Your task to perform on an android device: Turn off the flashlight Image 0: 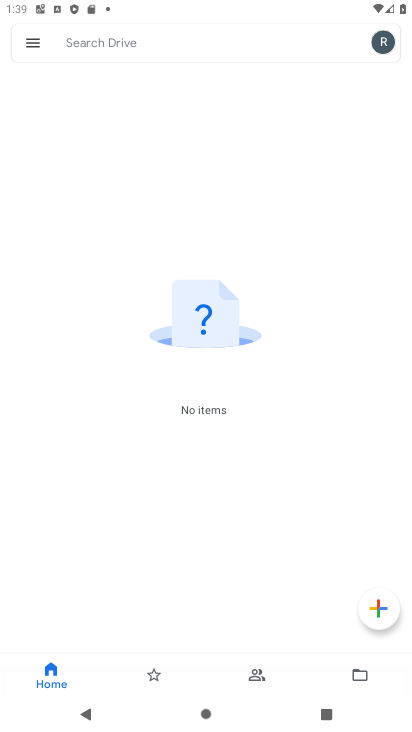
Step 0: press home button
Your task to perform on an android device: Turn off the flashlight Image 1: 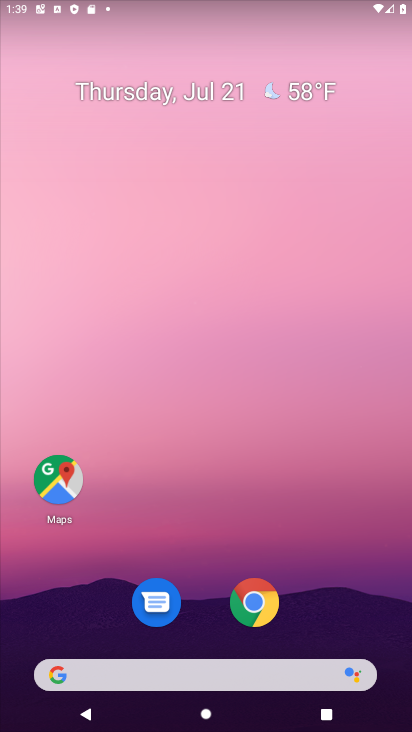
Step 1: drag from (378, 651) to (216, 34)
Your task to perform on an android device: Turn off the flashlight Image 2: 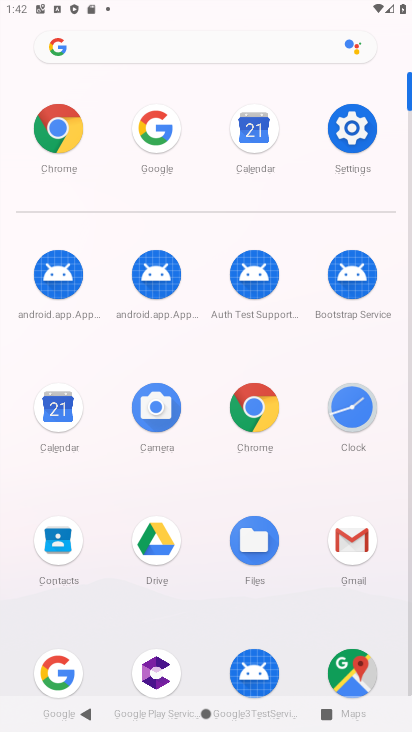
Step 2: click (339, 140)
Your task to perform on an android device: Turn off the flashlight Image 3: 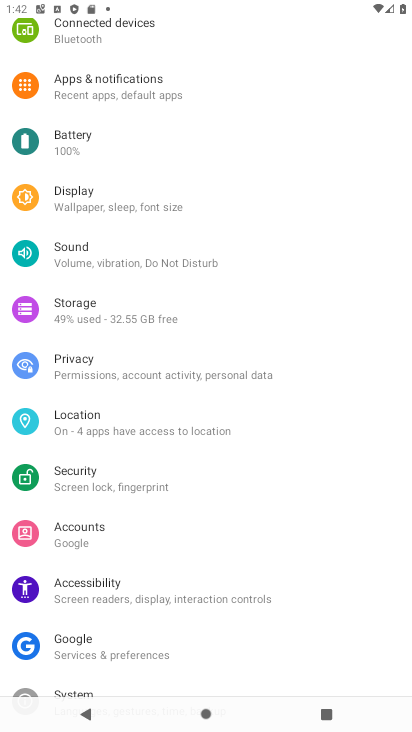
Step 3: task complete